Your task to perform on an android device: delete the emails in spam in the gmail app Image 0: 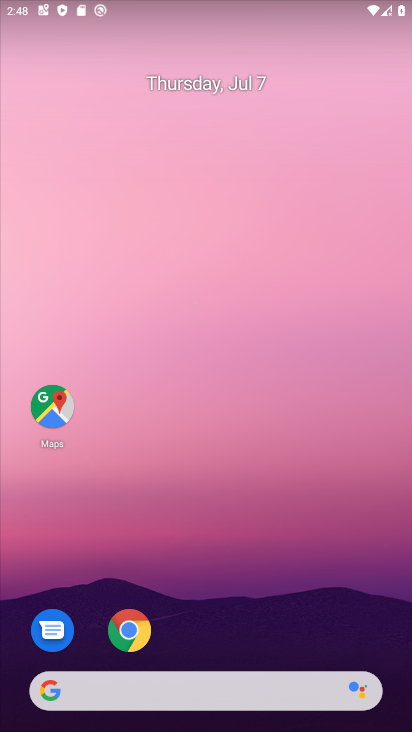
Step 0: drag from (222, 647) to (225, 447)
Your task to perform on an android device: delete the emails in spam in the gmail app Image 1: 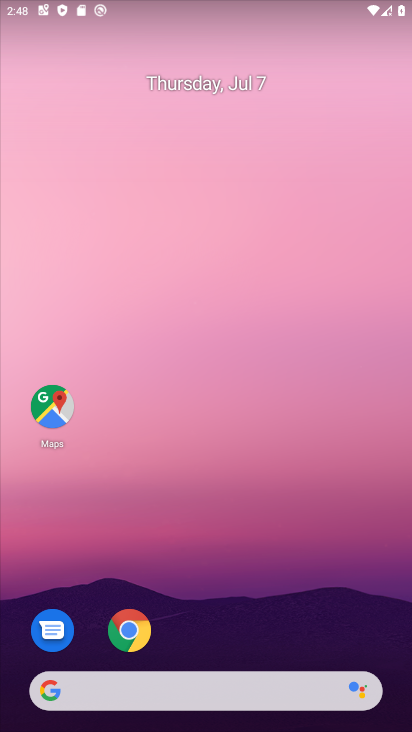
Step 1: drag from (210, 676) to (234, 278)
Your task to perform on an android device: delete the emails in spam in the gmail app Image 2: 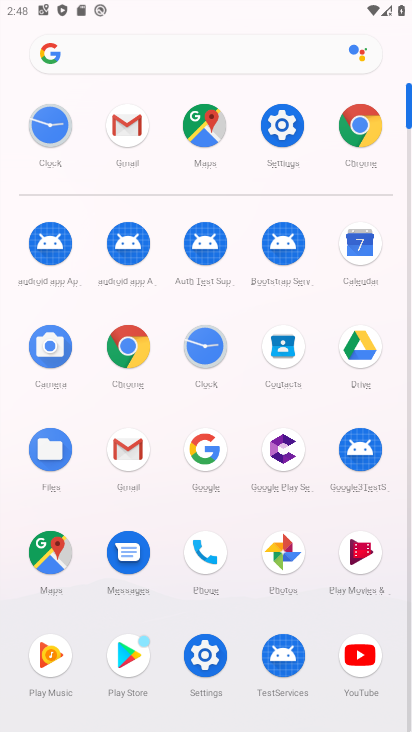
Step 2: drag from (209, 445) to (173, 106)
Your task to perform on an android device: delete the emails in spam in the gmail app Image 3: 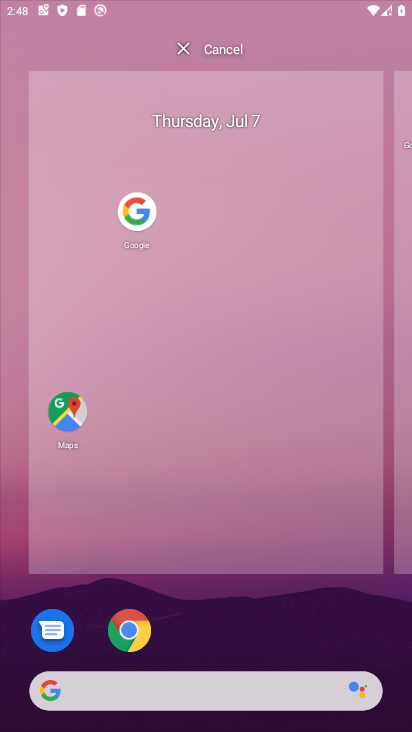
Step 3: click (122, 131)
Your task to perform on an android device: delete the emails in spam in the gmail app Image 4: 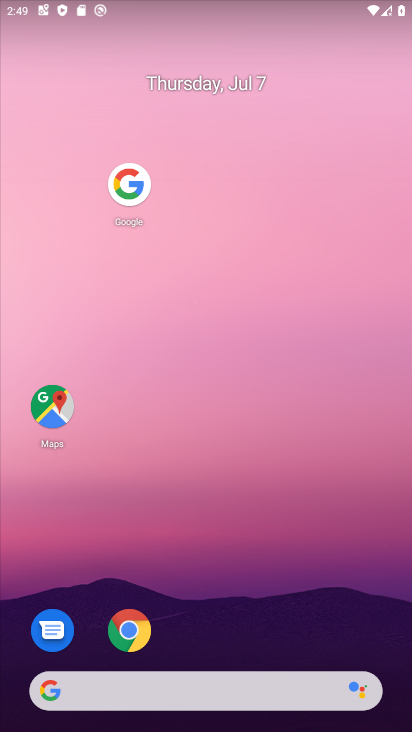
Step 4: drag from (195, 617) to (142, 144)
Your task to perform on an android device: delete the emails in spam in the gmail app Image 5: 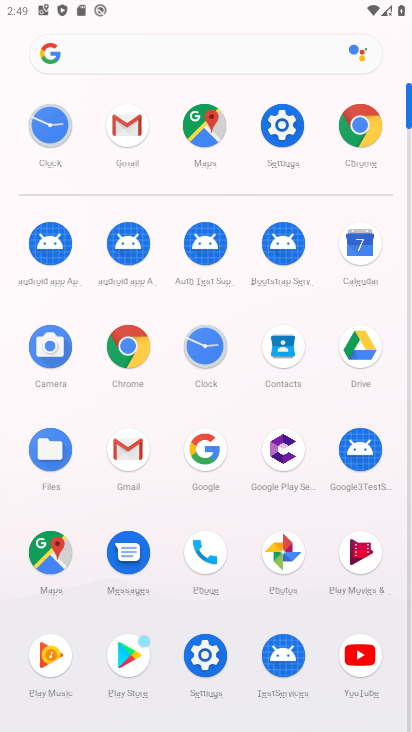
Step 5: click (121, 131)
Your task to perform on an android device: delete the emails in spam in the gmail app Image 6: 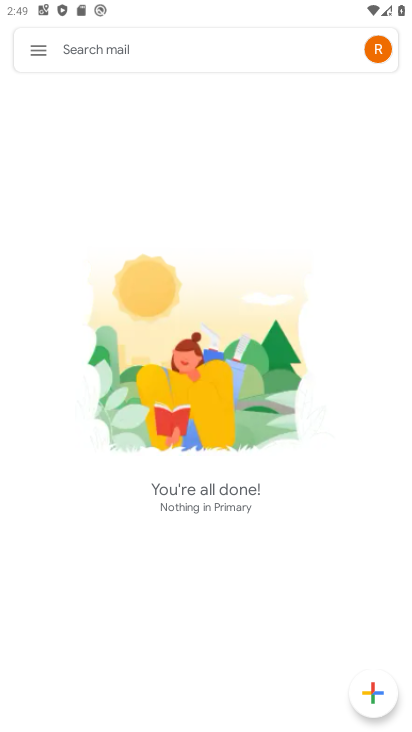
Step 6: click (43, 51)
Your task to perform on an android device: delete the emails in spam in the gmail app Image 7: 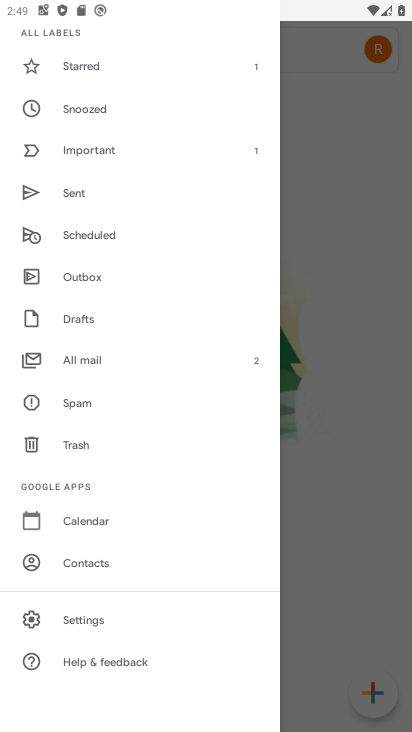
Step 7: click (83, 412)
Your task to perform on an android device: delete the emails in spam in the gmail app Image 8: 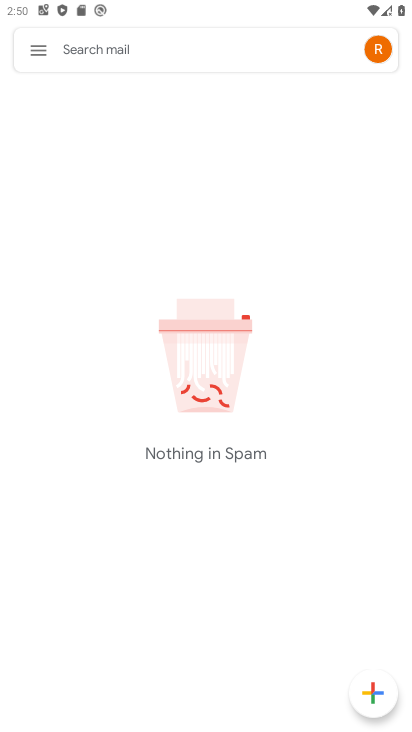
Step 8: task complete